Your task to perform on an android device: Turn off the flashlight Image 0: 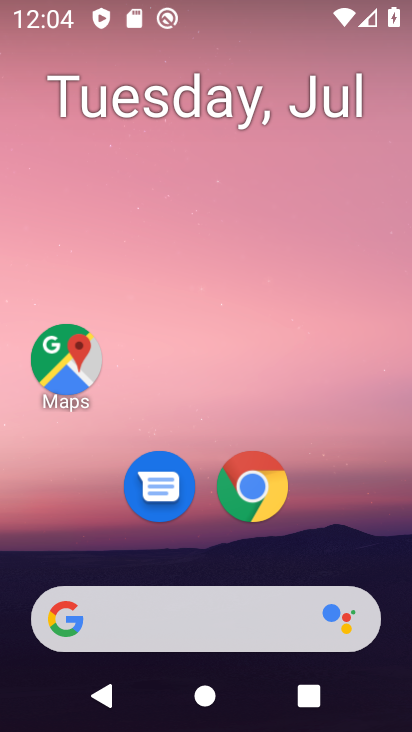
Step 0: drag from (239, 7) to (241, 432)
Your task to perform on an android device: Turn off the flashlight Image 1: 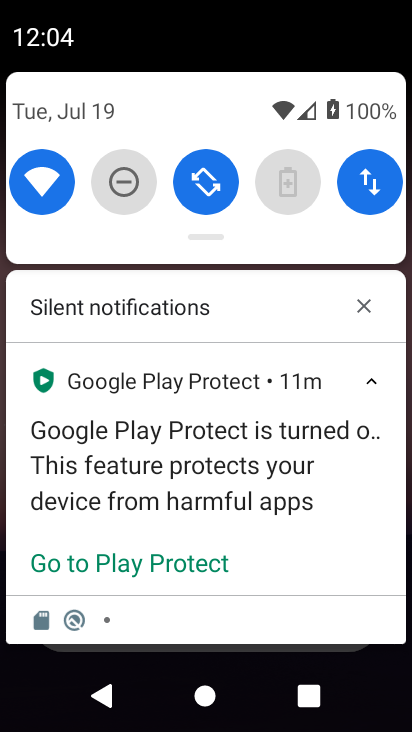
Step 1: drag from (233, 105) to (250, 461)
Your task to perform on an android device: Turn off the flashlight Image 2: 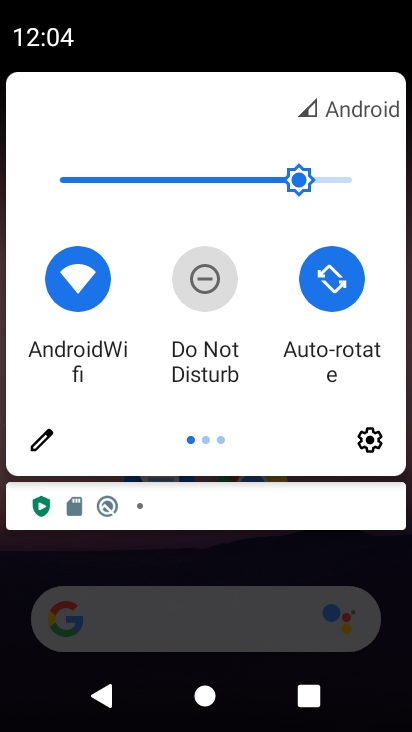
Step 2: click (38, 441)
Your task to perform on an android device: Turn off the flashlight Image 3: 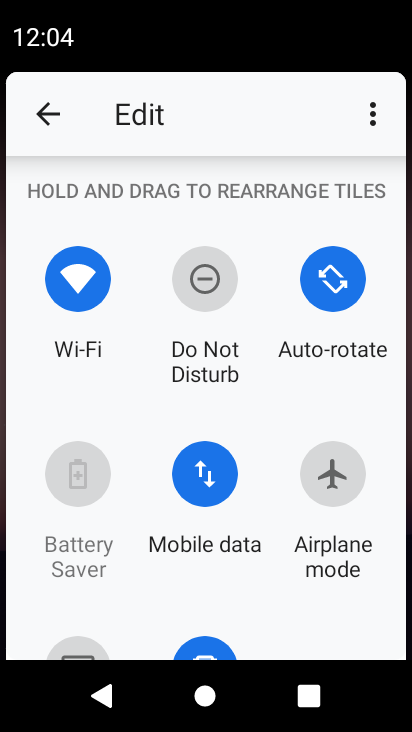
Step 3: task complete